Your task to perform on an android device: move a message to another label in the gmail app Image 0: 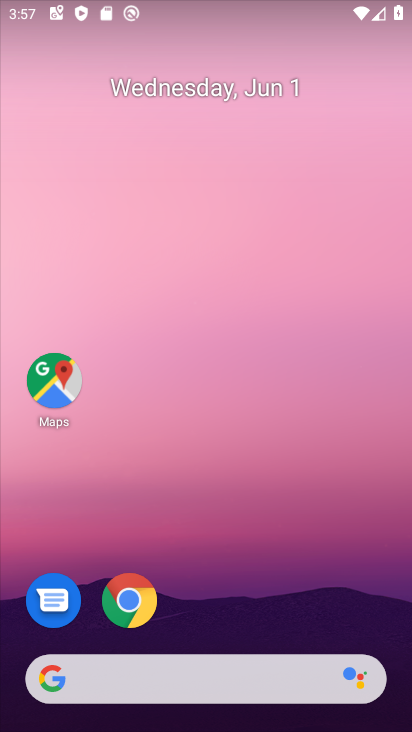
Step 0: drag from (389, 620) to (335, 102)
Your task to perform on an android device: move a message to another label in the gmail app Image 1: 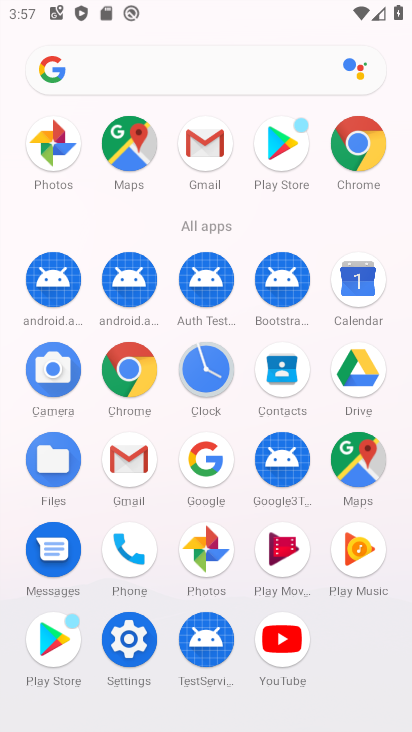
Step 1: click (134, 462)
Your task to perform on an android device: move a message to another label in the gmail app Image 2: 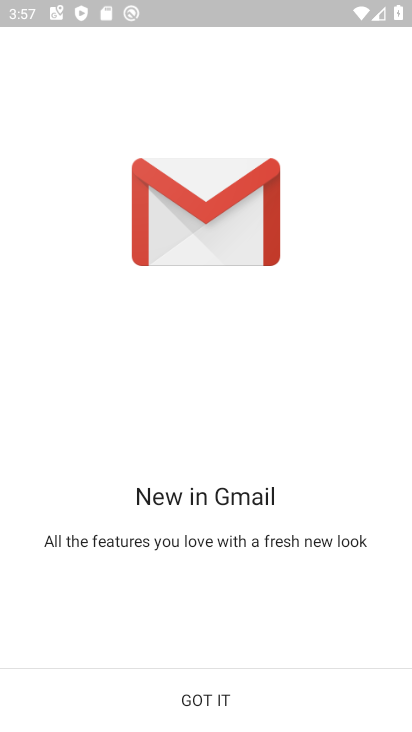
Step 2: click (218, 696)
Your task to perform on an android device: move a message to another label in the gmail app Image 3: 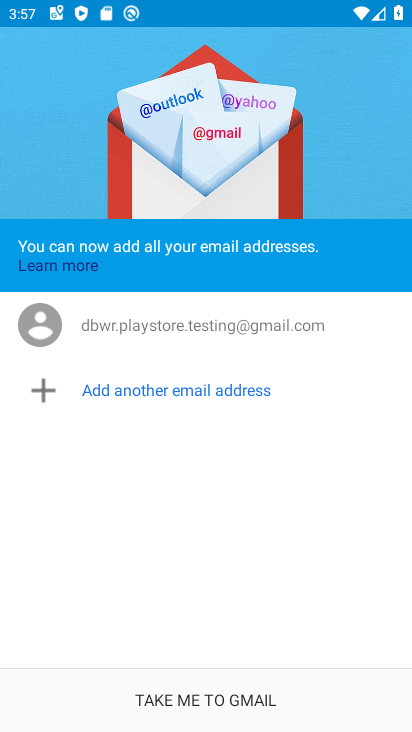
Step 3: click (218, 696)
Your task to perform on an android device: move a message to another label in the gmail app Image 4: 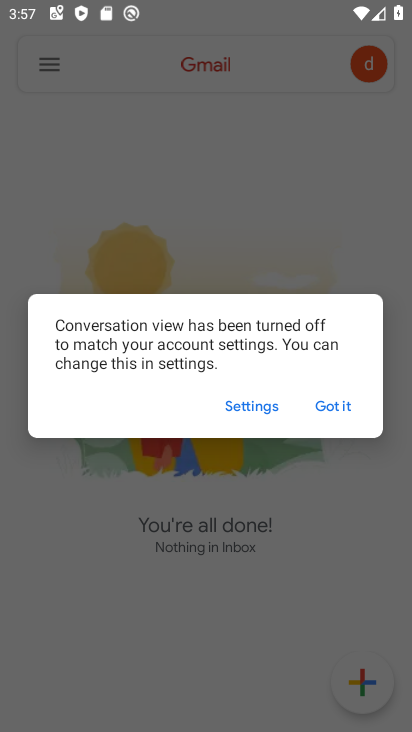
Step 4: click (331, 406)
Your task to perform on an android device: move a message to another label in the gmail app Image 5: 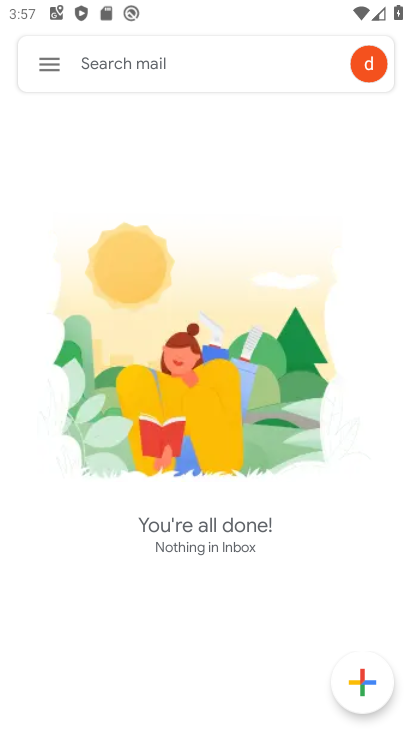
Step 5: click (39, 68)
Your task to perform on an android device: move a message to another label in the gmail app Image 6: 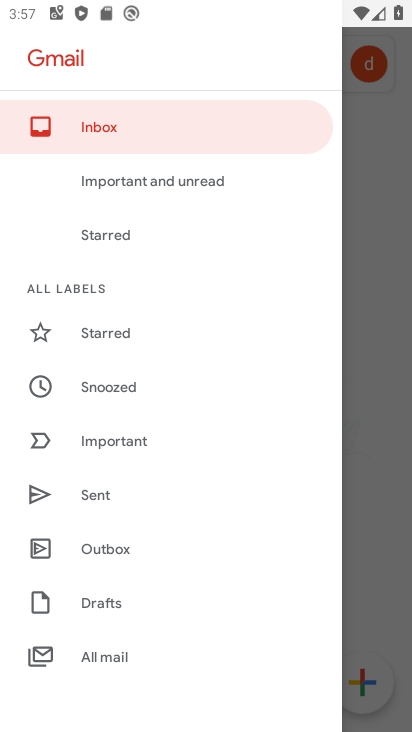
Step 6: drag from (224, 604) to (250, 351)
Your task to perform on an android device: move a message to another label in the gmail app Image 7: 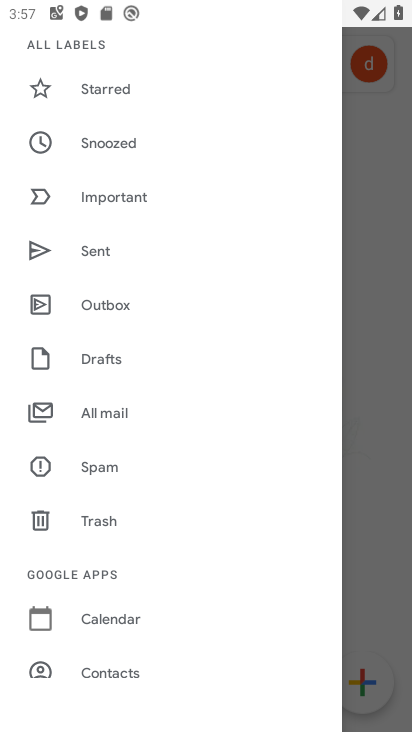
Step 7: click (122, 421)
Your task to perform on an android device: move a message to another label in the gmail app Image 8: 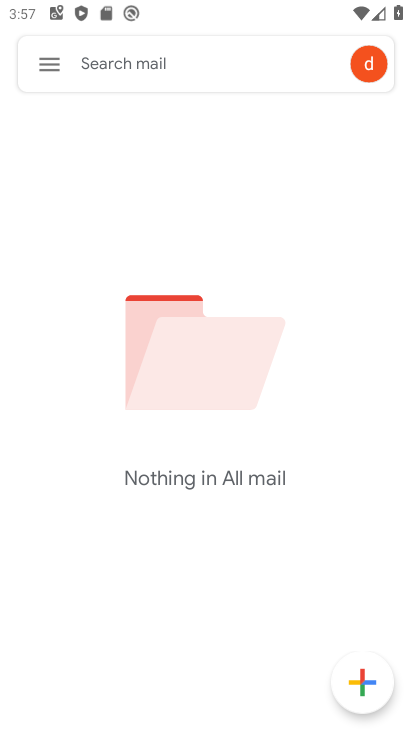
Step 8: task complete